Your task to perform on an android device: turn on the 12-hour format for clock Image 0: 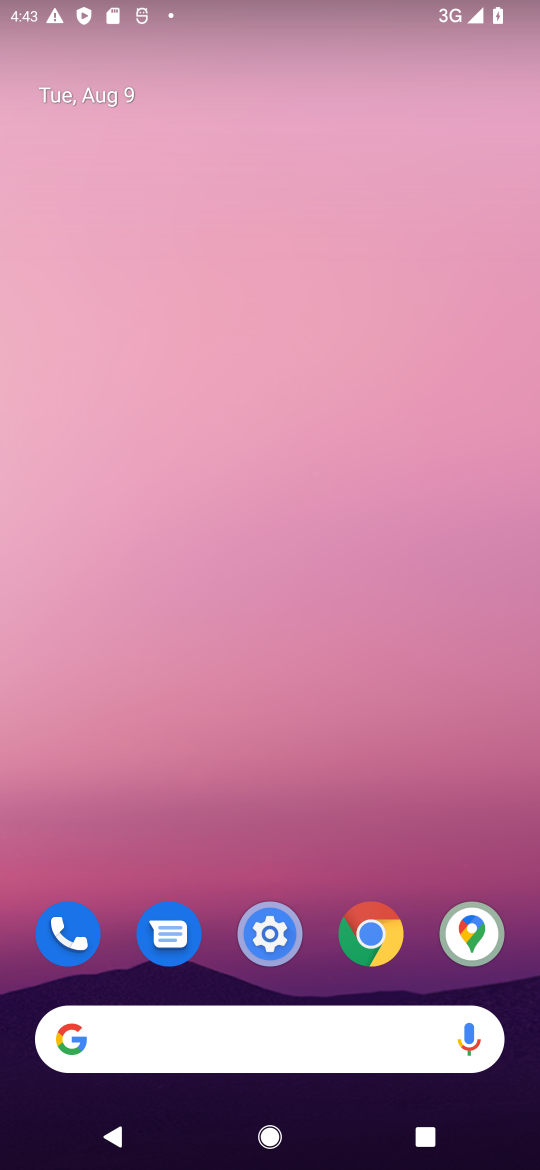
Step 0: drag from (211, 959) to (271, 13)
Your task to perform on an android device: turn on the 12-hour format for clock Image 1: 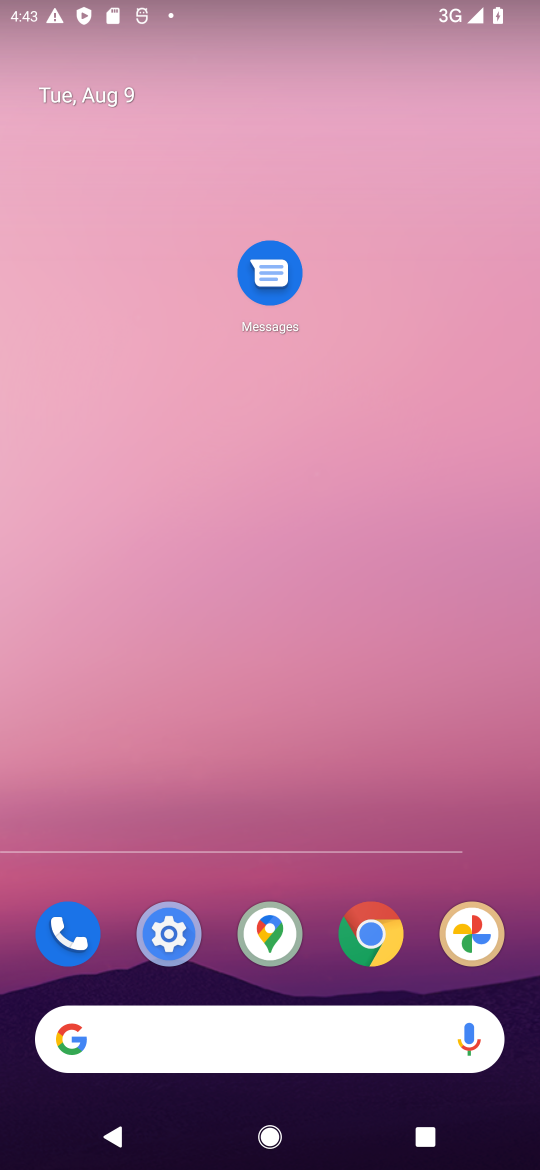
Step 1: click (389, 406)
Your task to perform on an android device: turn on the 12-hour format for clock Image 2: 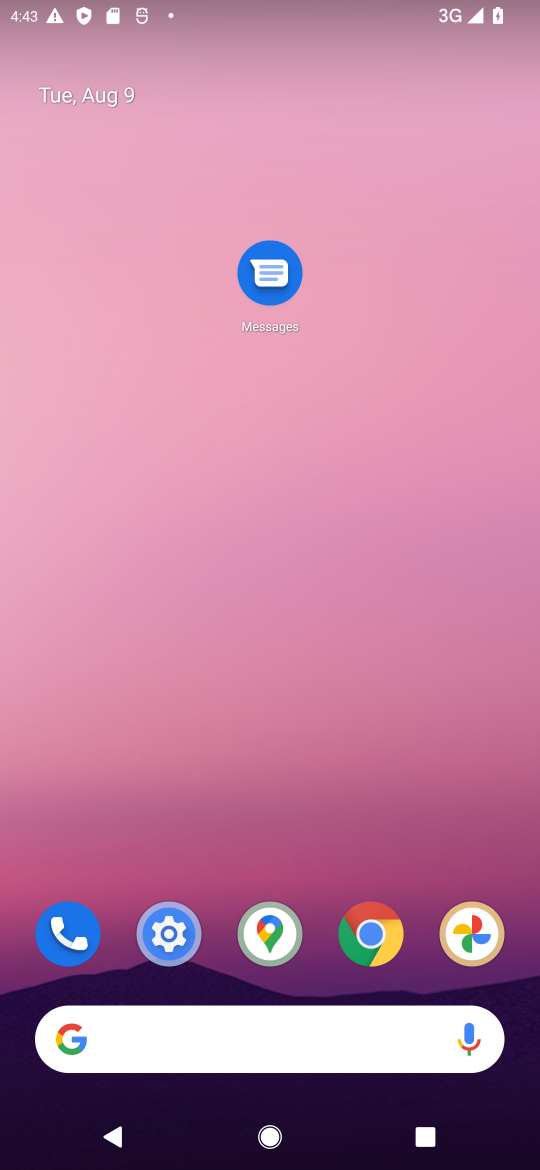
Step 2: drag from (225, 981) to (221, 172)
Your task to perform on an android device: turn on the 12-hour format for clock Image 3: 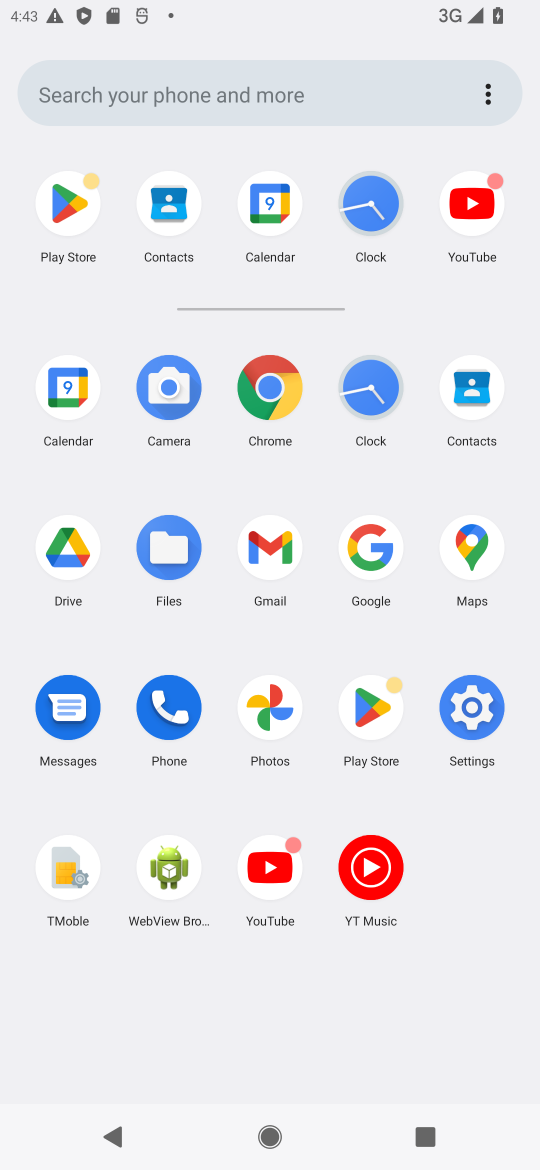
Step 3: click (352, 396)
Your task to perform on an android device: turn on the 12-hour format for clock Image 4: 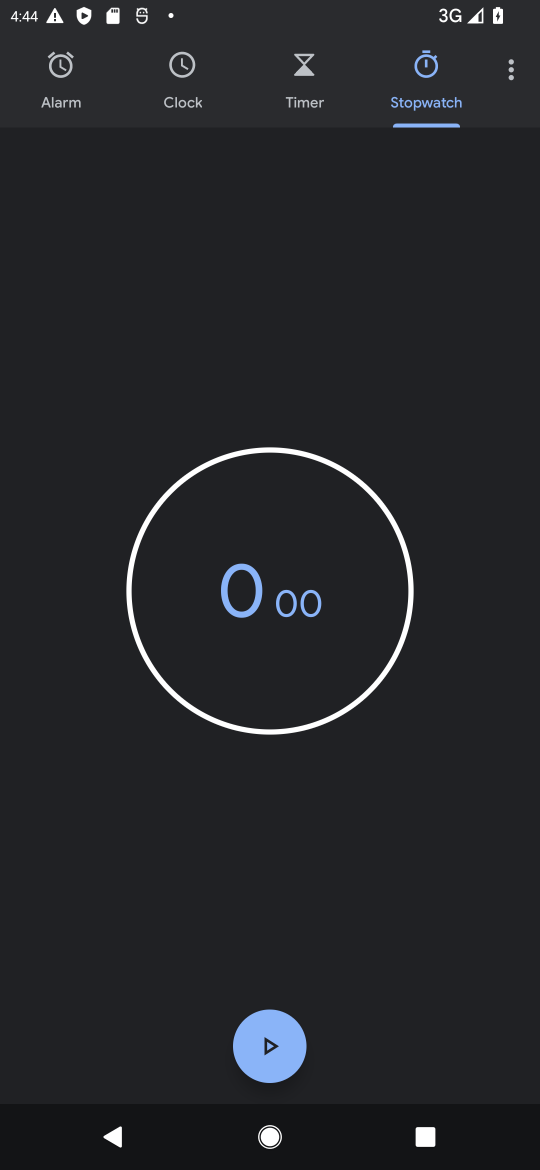
Step 4: task complete